Your task to perform on an android device: change timer sound Image 0: 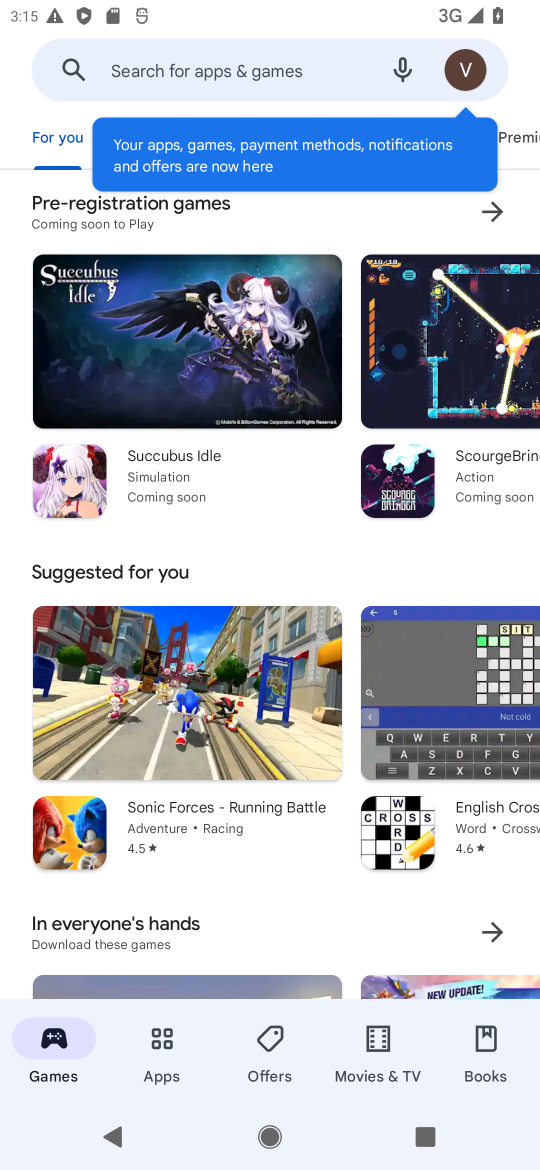
Step 0: task complete